Your task to perform on an android device: Open the calendar app, open the side menu, and click the "Day" option Image 0: 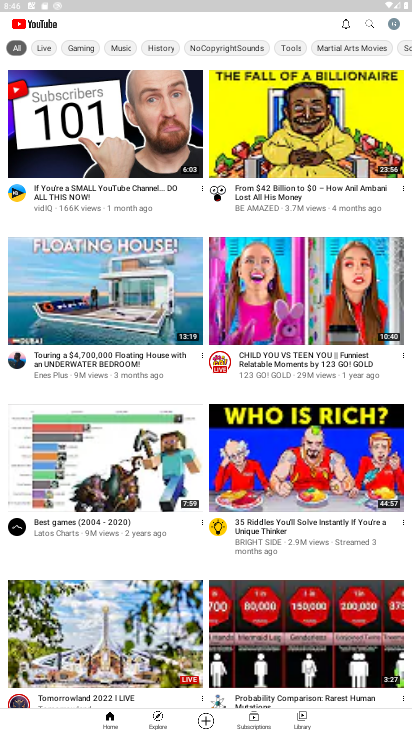
Step 0: press home button
Your task to perform on an android device: Open the calendar app, open the side menu, and click the "Day" option Image 1: 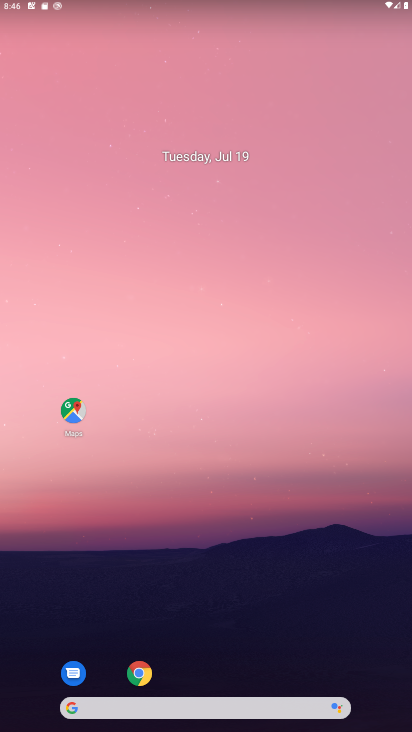
Step 1: drag from (357, 644) to (279, 118)
Your task to perform on an android device: Open the calendar app, open the side menu, and click the "Day" option Image 2: 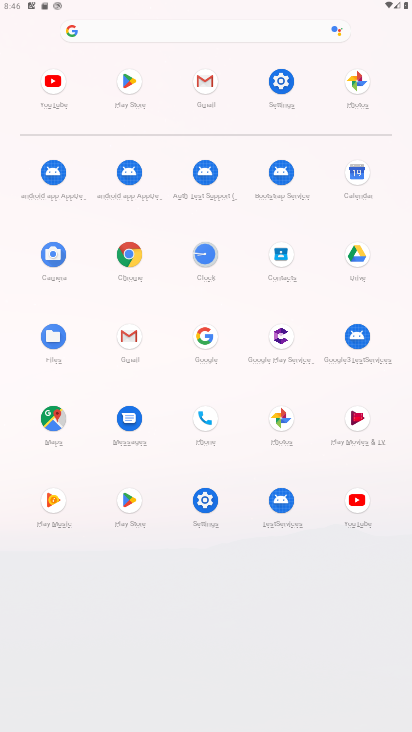
Step 2: click (355, 171)
Your task to perform on an android device: Open the calendar app, open the side menu, and click the "Day" option Image 3: 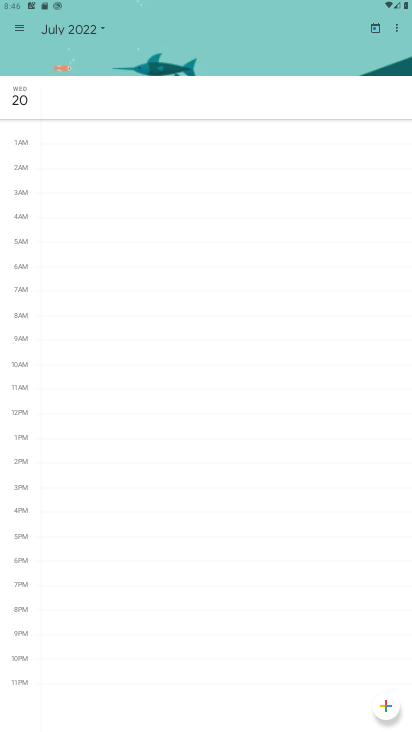
Step 3: click (21, 29)
Your task to perform on an android device: Open the calendar app, open the side menu, and click the "Day" option Image 4: 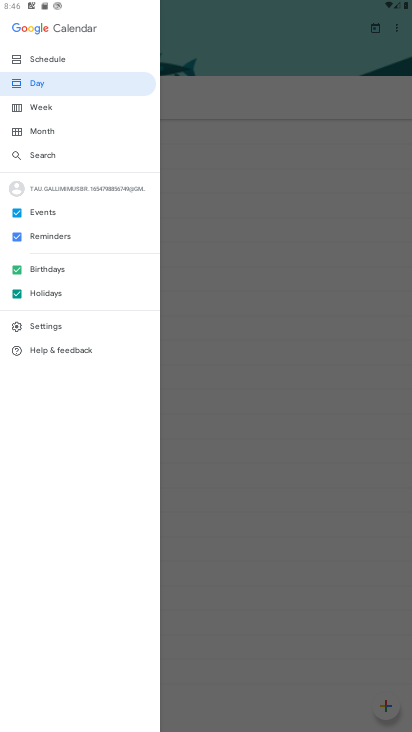
Step 4: click (43, 87)
Your task to perform on an android device: Open the calendar app, open the side menu, and click the "Day" option Image 5: 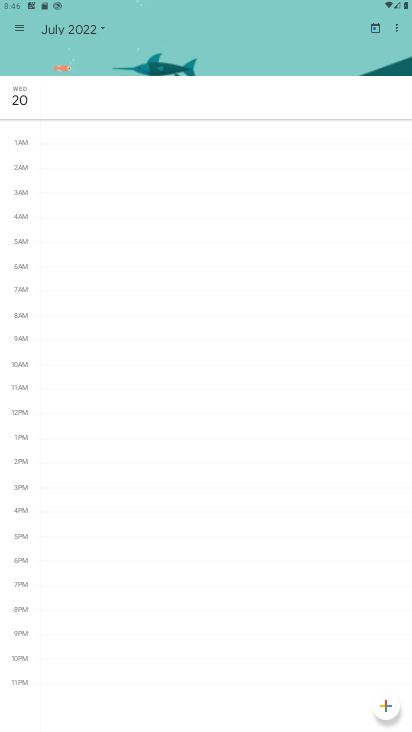
Step 5: task complete